Your task to perform on an android device: turn off notifications in google photos Image 0: 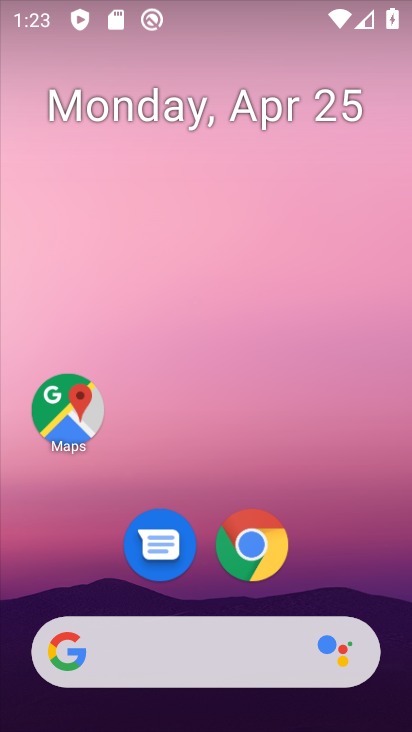
Step 0: drag from (301, 489) to (295, 99)
Your task to perform on an android device: turn off notifications in google photos Image 1: 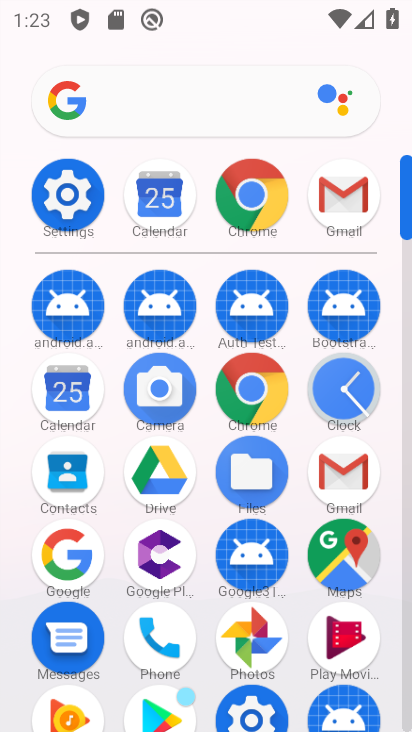
Step 1: click (81, 206)
Your task to perform on an android device: turn off notifications in google photos Image 2: 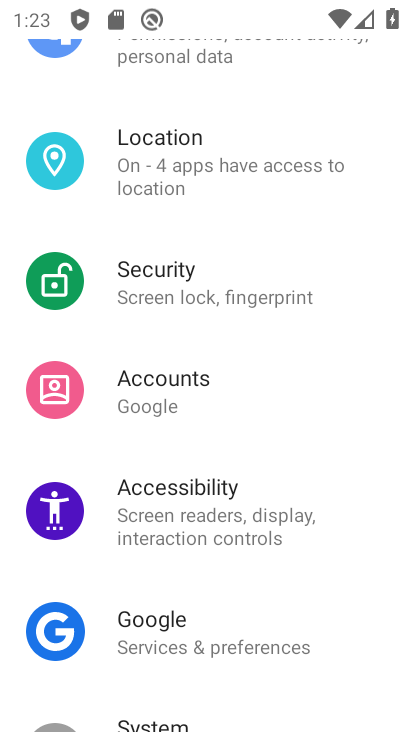
Step 2: drag from (235, 235) to (200, 599)
Your task to perform on an android device: turn off notifications in google photos Image 3: 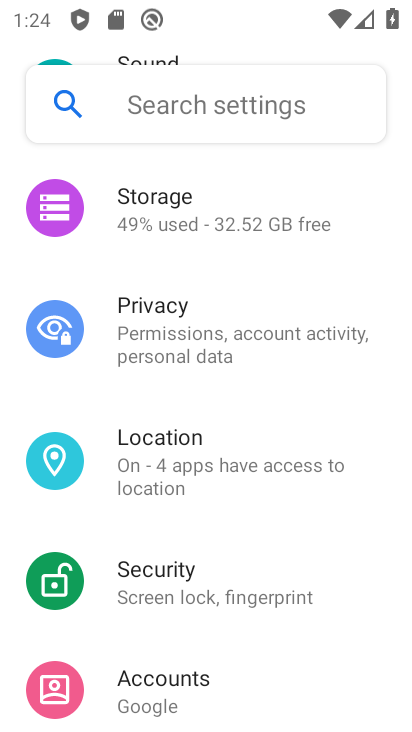
Step 3: drag from (242, 312) to (201, 608)
Your task to perform on an android device: turn off notifications in google photos Image 4: 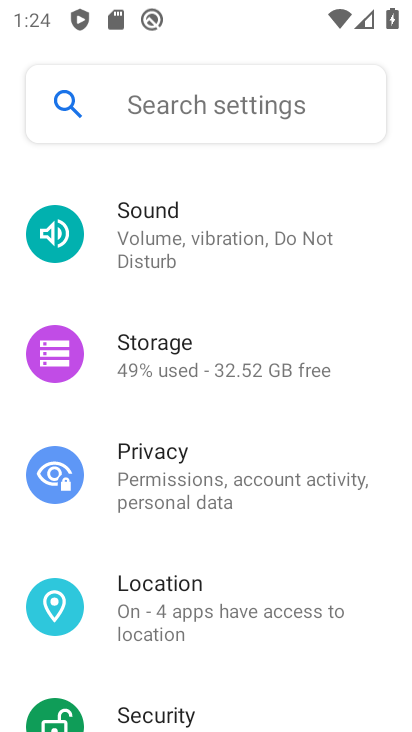
Step 4: drag from (224, 294) to (217, 648)
Your task to perform on an android device: turn off notifications in google photos Image 5: 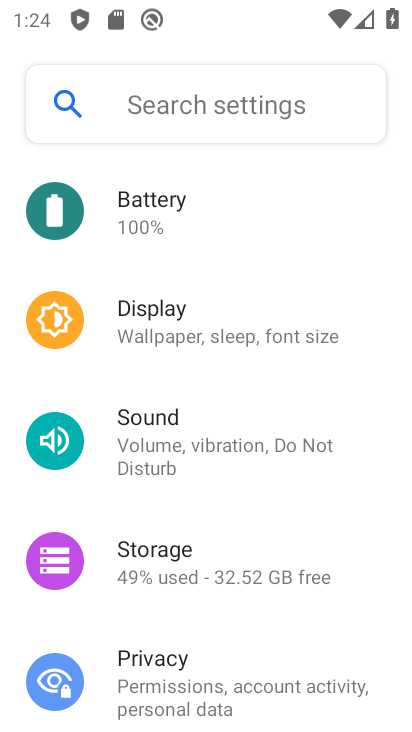
Step 5: drag from (258, 251) to (255, 599)
Your task to perform on an android device: turn off notifications in google photos Image 6: 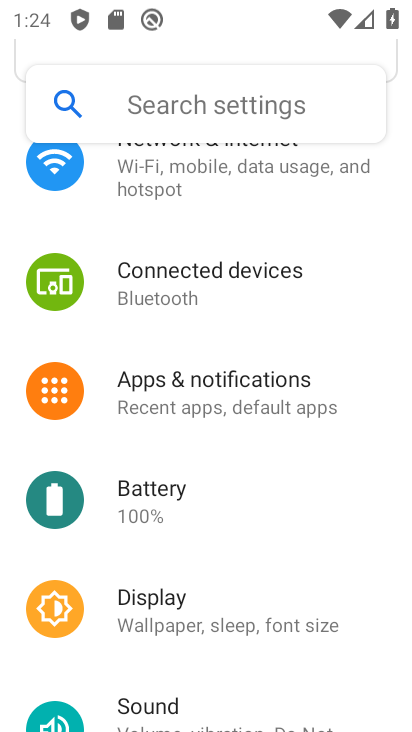
Step 6: click (218, 410)
Your task to perform on an android device: turn off notifications in google photos Image 7: 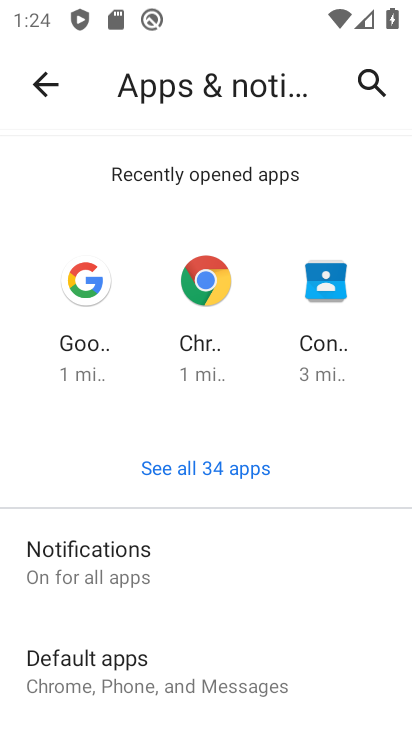
Step 7: drag from (302, 628) to (291, 450)
Your task to perform on an android device: turn off notifications in google photos Image 8: 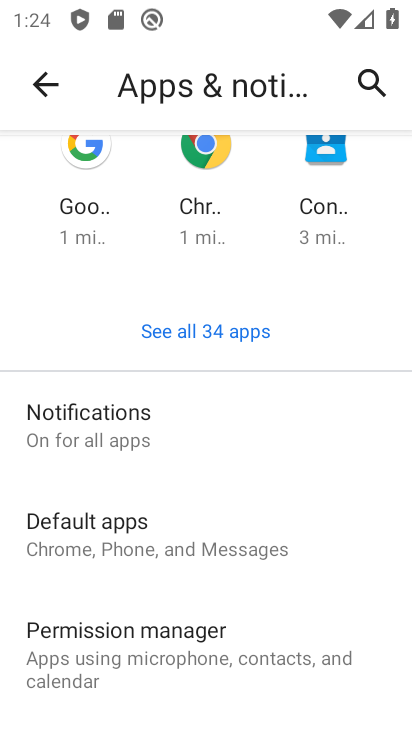
Step 8: click (134, 427)
Your task to perform on an android device: turn off notifications in google photos Image 9: 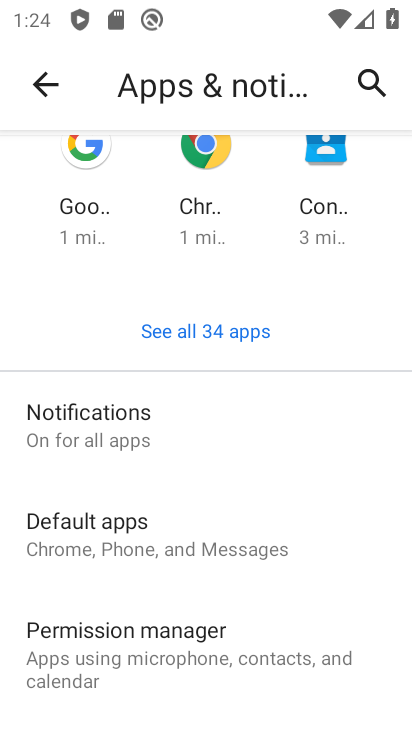
Step 9: click (134, 427)
Your task to perform on an android device: turn off notifications in google photos Image 10: 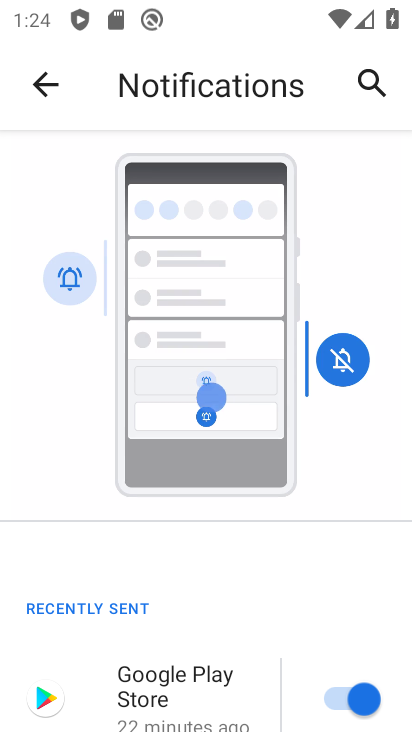
Step 10: drag from (267, 605) to (264, 175)
Your task to perform on an android device: turn off notifications in google photos Image 11: 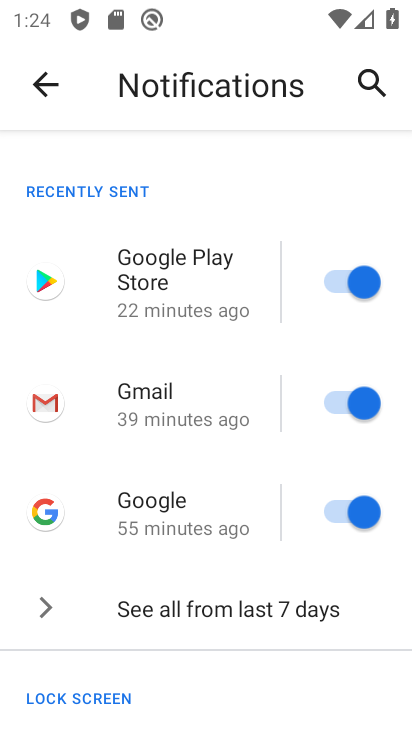
Step 11: drag from (213, 677) to (223, 275)
Your task to perform on an android device: turn off notifications in google photos Image 12: 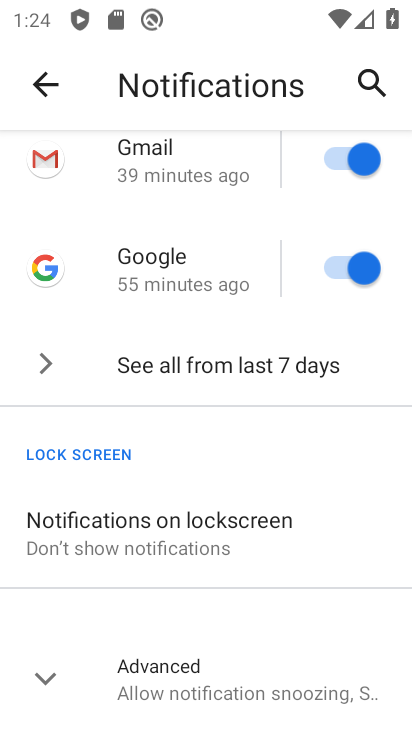
Step 12: click (45, 94)
Your task to perform on an android device: turn off notifications in google photos Image 13: 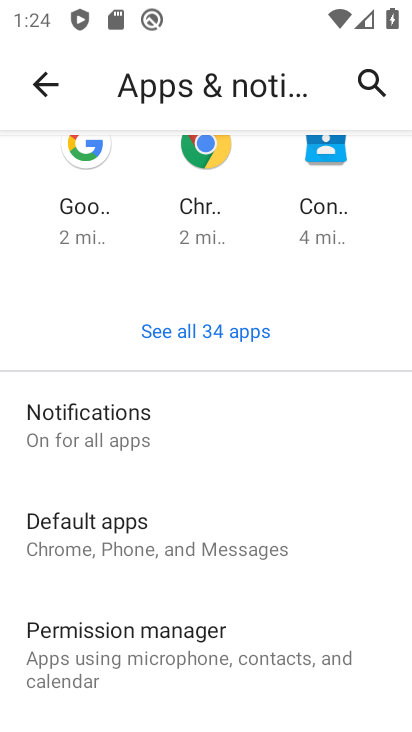
Step 13: drag from (263, 384) to (259, 639)
Your task to perform on an android device: turn off notifications in google photos Image 14: 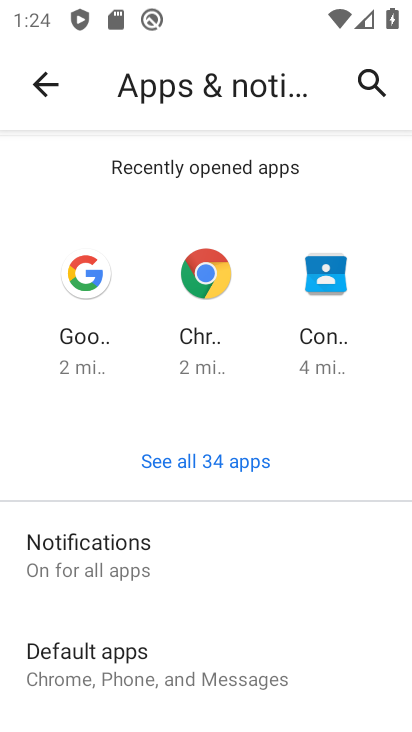
Step 14: drag from (255, 232) to (253, 562)
Your task to perform on an android device: turn off notifications in google photos Image 15: 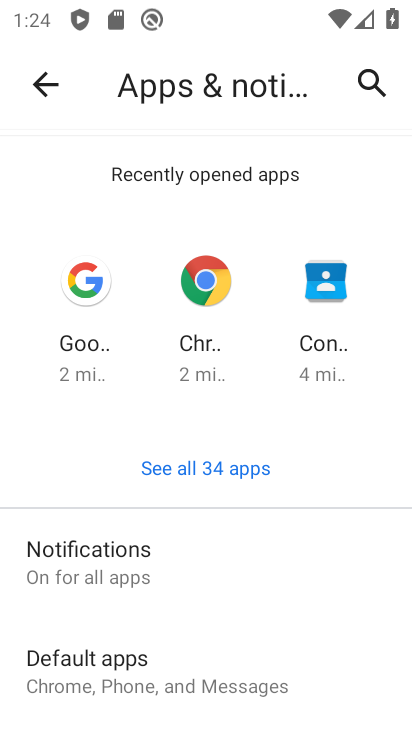
Step 15: click (49, 86)
Your task to perform on an android device: turn off notifications in google photos Image 16: 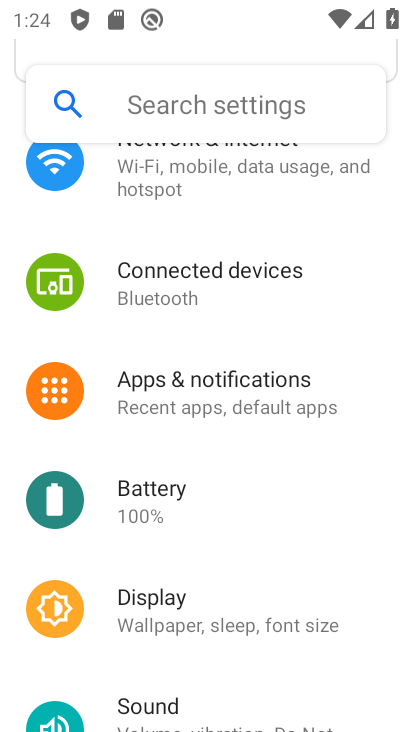
Step 16: press home button
Your task to perform on an android device: turn off notifications in google photos Image 17: 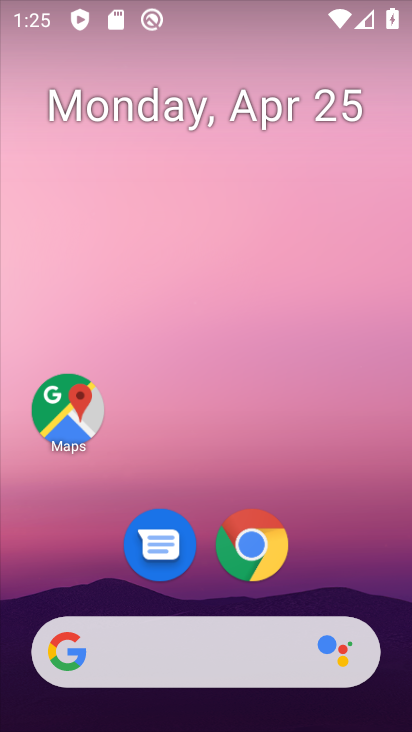
Step 17: drag from (327, 570) to (286, 119)
Your task to perform on an android device: turn off notifications in google photos Image 18: 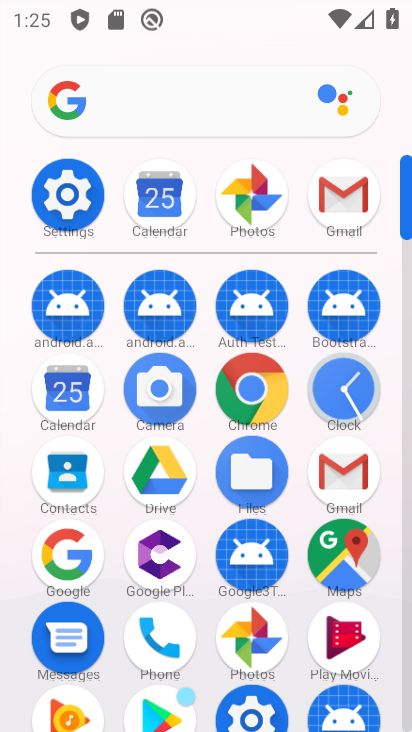
Step 18: click (78, 203)
Your task to perform on an android device: turn off notifications in google photos Image 19: 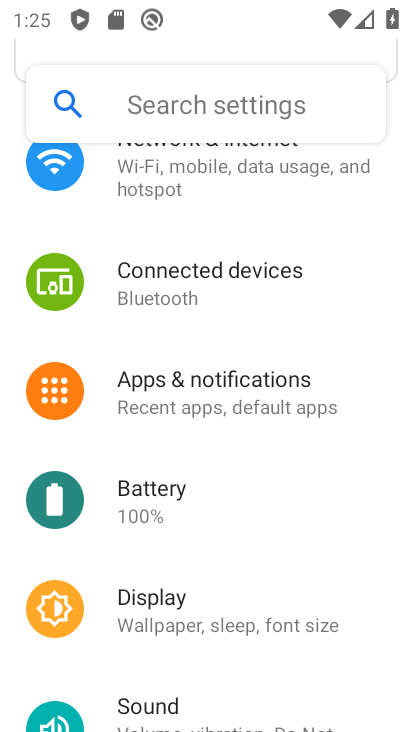
Step 19: click (254, 402)
Your task to perform on an android device: turn off notifications in google photos Image 20: 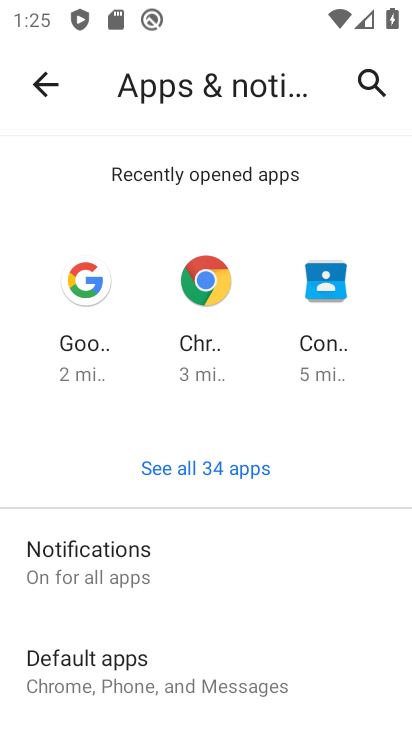
Step 20: click (39, 86)
Your task to perform on an android device: turn off notifications in google photos Image 21: 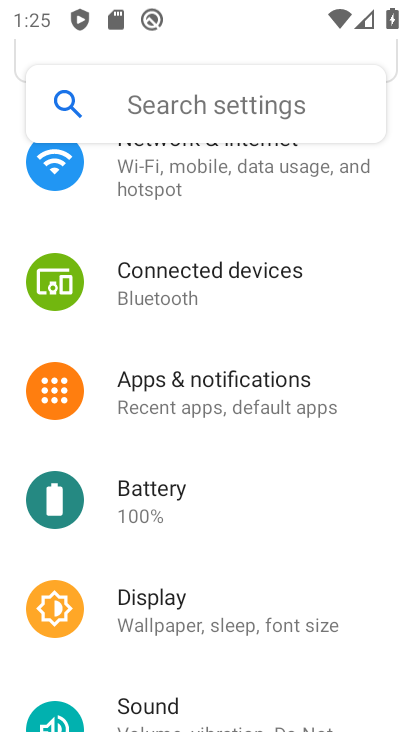
Step 21: press home button
Your task to perform on an android device: turn off notifications in google photos Image 22: 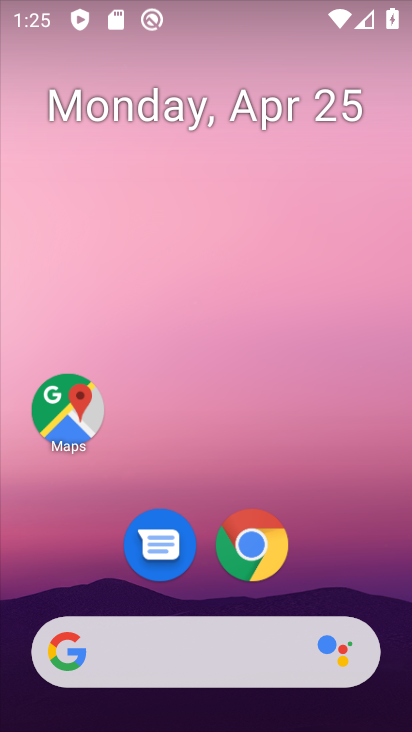
Step 22: drag from (341, 498) to (316, 100)
Your task to perform on an android device: turn off notifications in google photos Image 23: 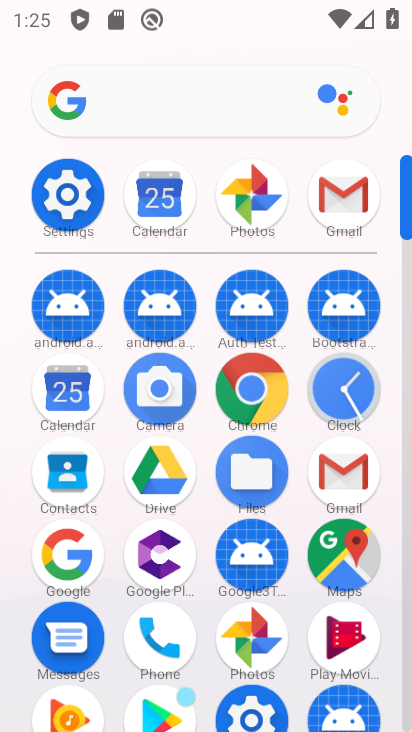
Step 23: click (253, 632)
Your task to perform on an android device: turn off notifications in google photos Image 24: 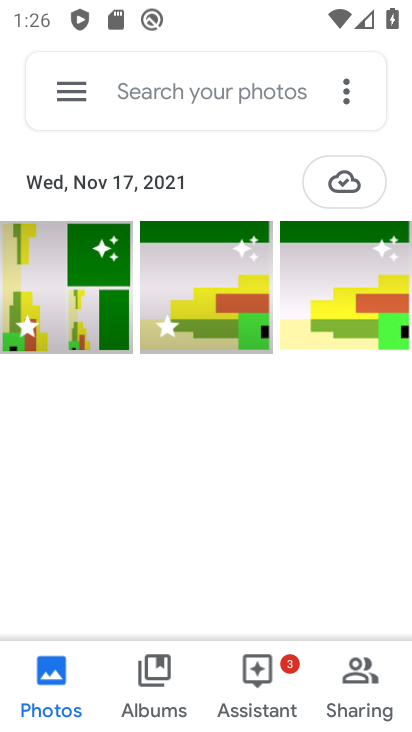
Step 24: click (77, 89)
Your task to perform on an android device: turn off notifications in google photos Image 25: 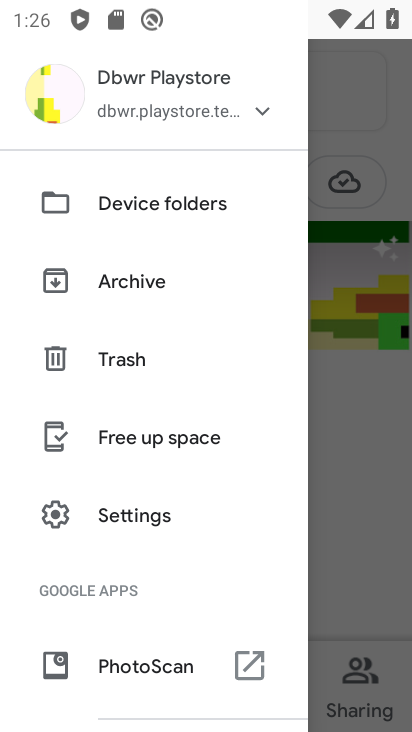
Step 25: click (160, 510)
Your task to perform on an android device: turn off notifications in google photos Image 26: 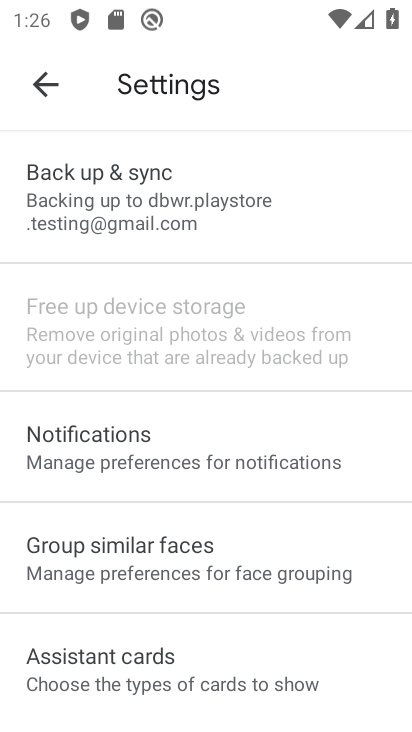
Step 26: click (194, 458)
Your task to perform on an android device: turn off notifications in google photos Image 27: 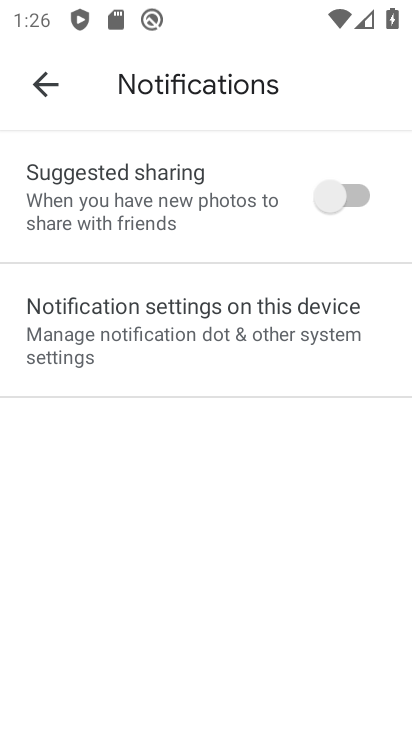
Step 27: click (287, 345)
Your task to perform on an android device: turn off notifications in google photos Image 28: 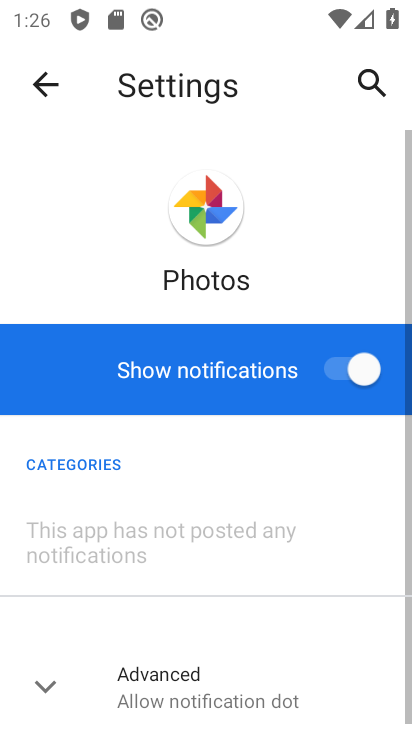
Step 28: click (340, 364)
Your task to perform on an android device: turn off notifications in google photos Image 29: 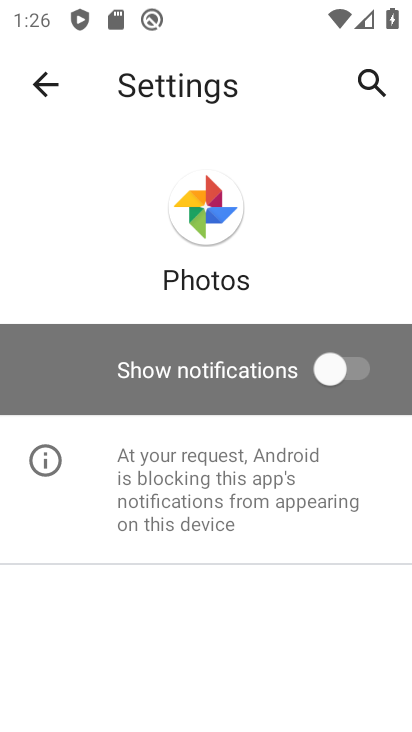
Step 29: task complete